Your task to perform on an android device: turn pop-ups off in chrome Image 0: 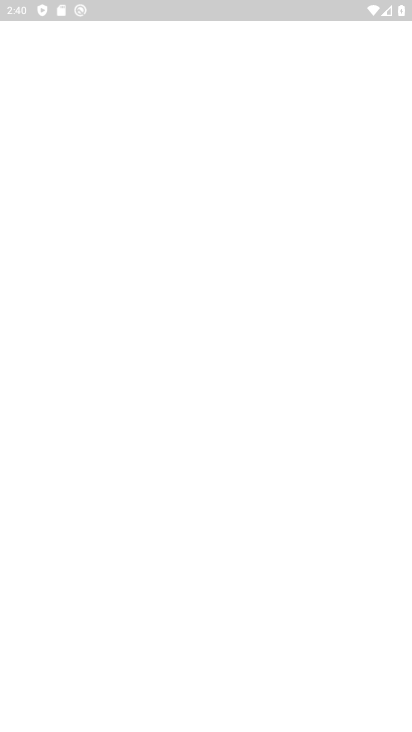
Step 0: press home button
Your task to perform on an android device: turn pop-ups off in chrome Image 1: 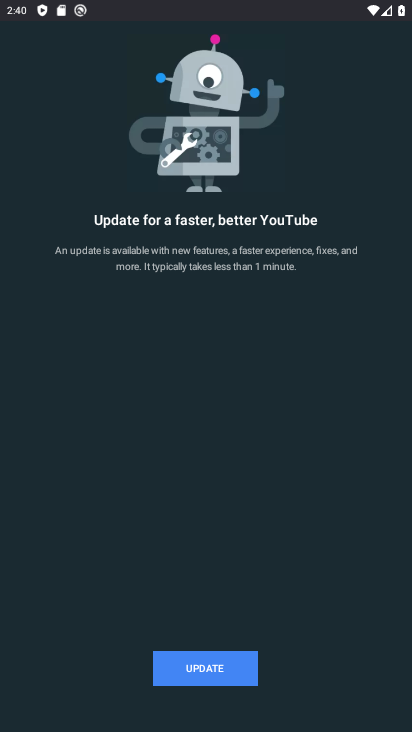
Step 1: press home button
Your task to perform on an android device: turn pop-ups off in chrome Image 2: 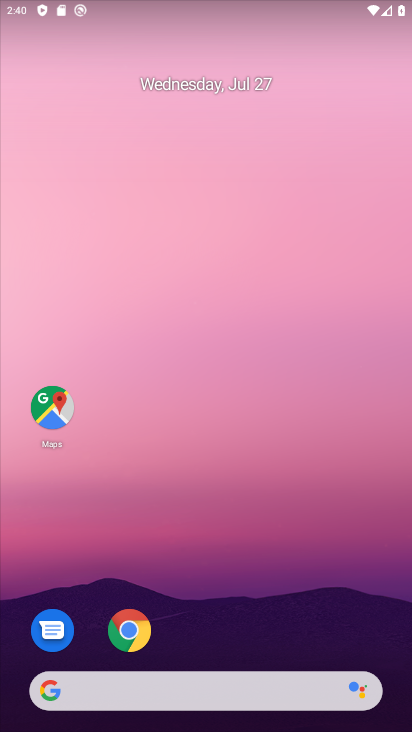
Step 2: drag from (222, 653) to (265, 195)
Your task to perform on an android device: turn pop-ups off in chrome Image 3: 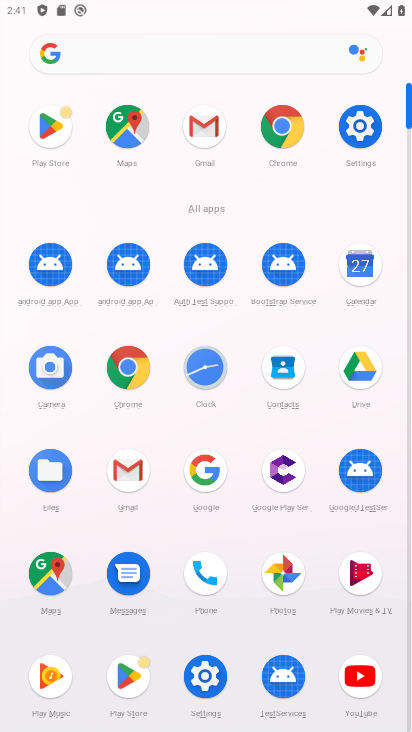
Step 3: click (276, 124)
Your task to perform on an android device: turn pop-ups off in chrome Image 4: 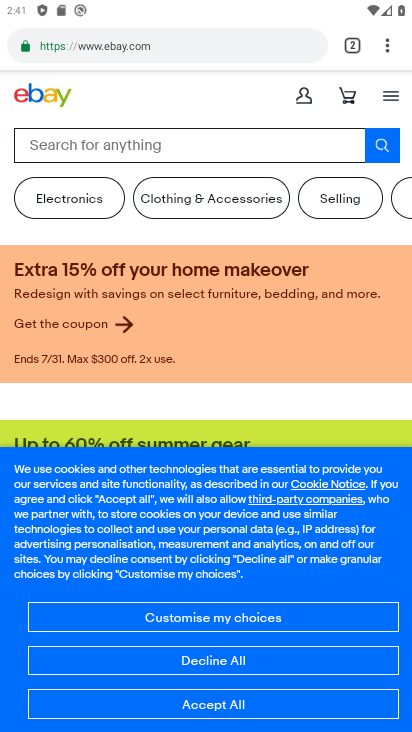
Step 4: drag from (388, 49) to (203, 612)
Your task to perform on an android device: turn pop-ups off in chrome Image 5: 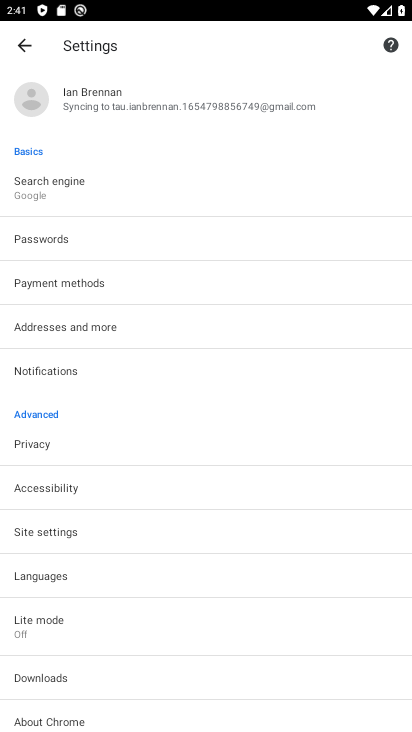
Step 5: click (55, 527)
Your task to perform on an android device: turn pop-ups off in chrome Image 6: 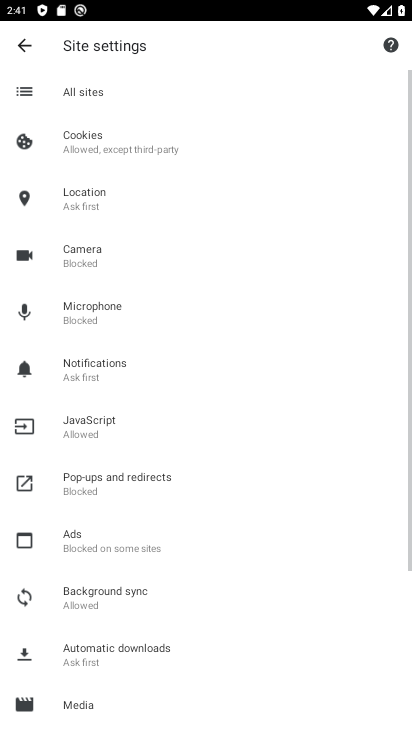
Step 6: click (69, 481)
Your task to perform on an android device: turn pop-ups off in chrome Image 7: 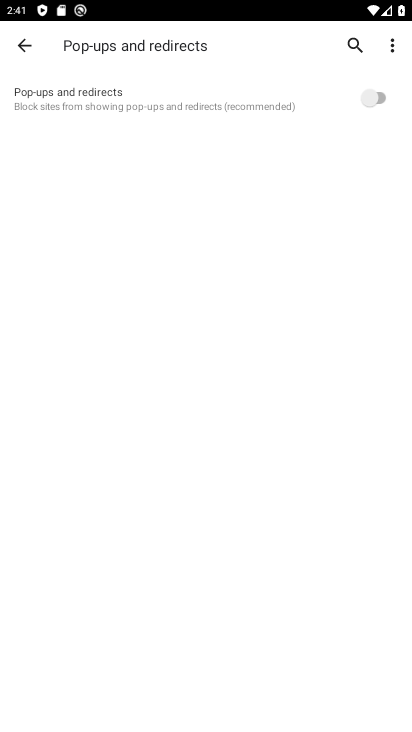
Step 7: task complete